Your task to perform on an android device: Open Chrome and go to the settings page Image 0: 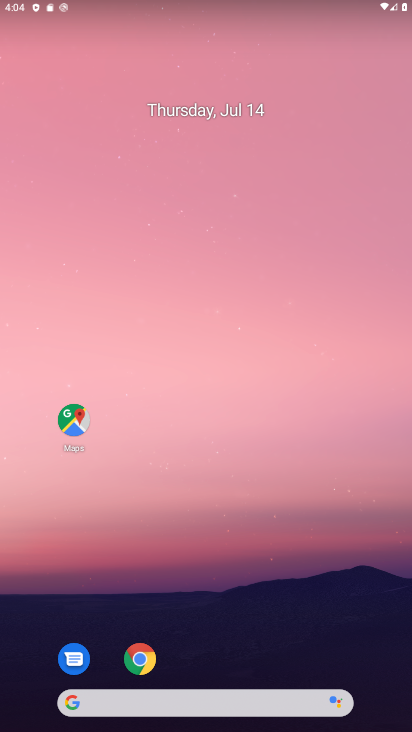
Step 0: drag from (241, 606) to (150, 78)
Your task to perform on an android device: Open Chrome and go to the settings page Image 1: 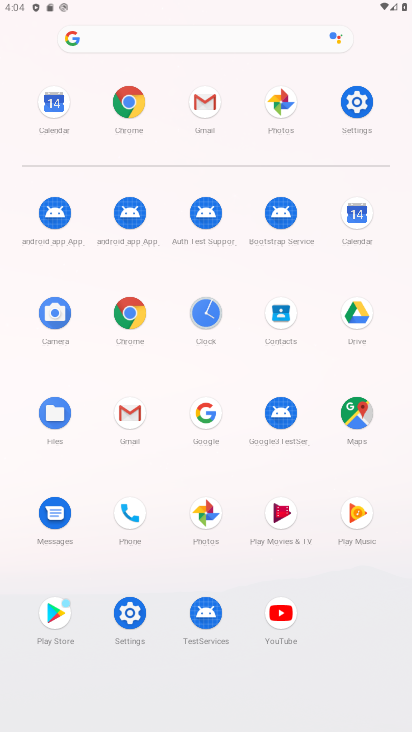
Step 1: click (350, 105)
Your task to perform on an android device: Open Chrome and go to the settings page Image 2: 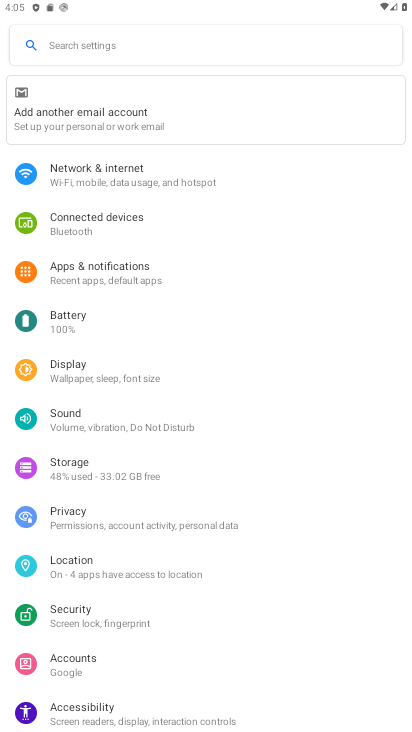
Step 2: task complete